Your task to perform on an android device: Go to settings Image 0: 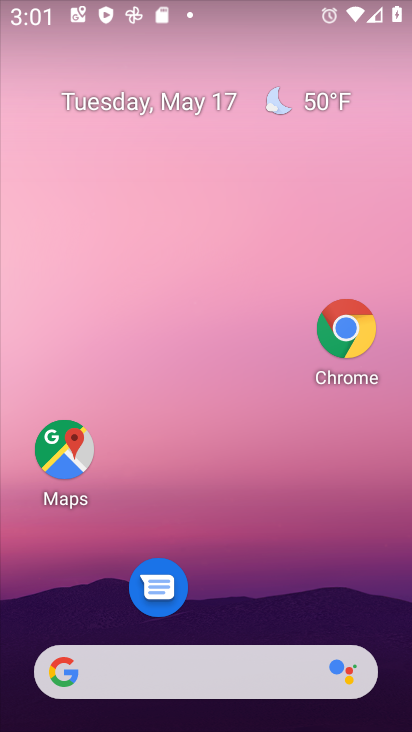
Step 0: drag from (229, 598) to (234, 132)
Your task to perform on an android device: Go to settings Image 1: 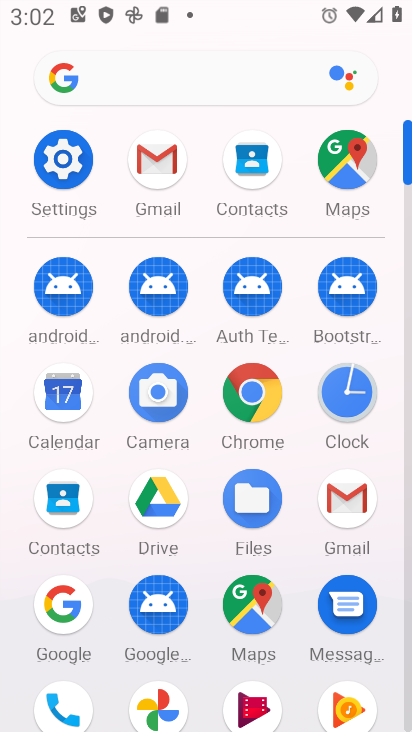
Step 1: click (82, 188)
Your task to perform on an android device: Go to settings Image 2: 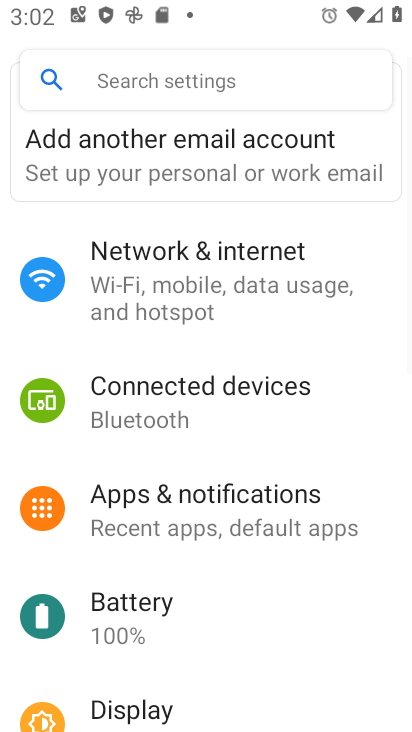
Step 2: task complete